Your task to perform on an android device: add a contact in the contacts app Image 0: 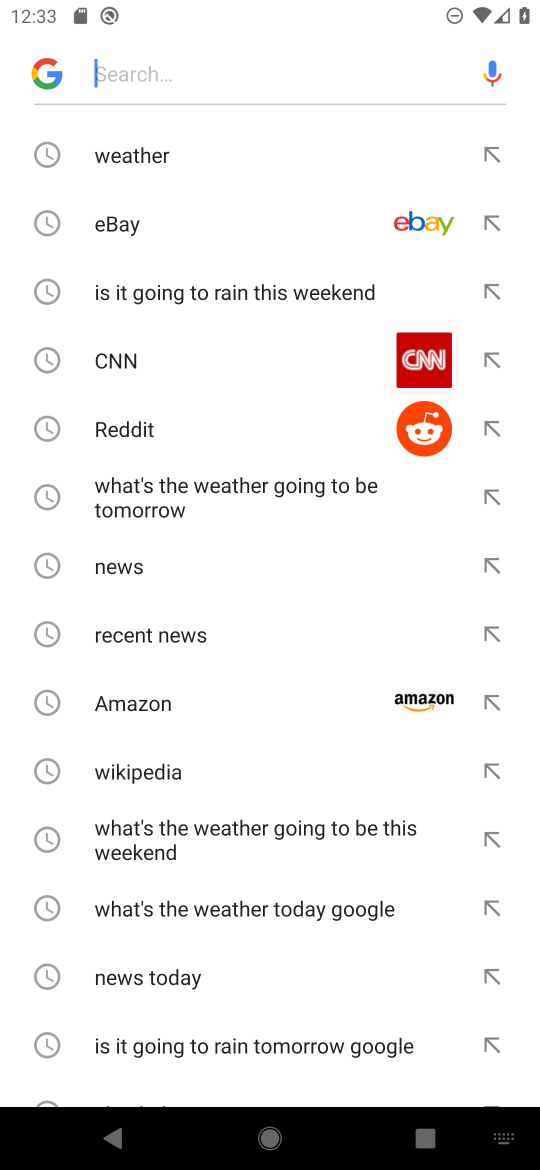
Step 0: press home button
Your task to perform on an android device: add a contact in the contacts app Image 1: 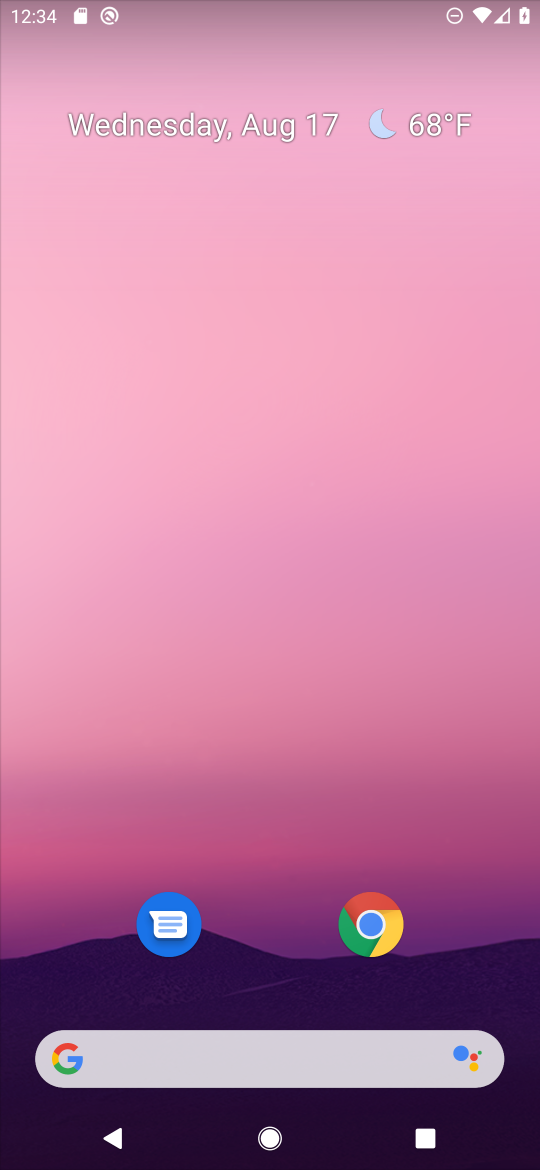
Step 1: drag from (264, 979) to (301, 98)
Your task to perform on an android device: add a contact in the contacts app Image 2: 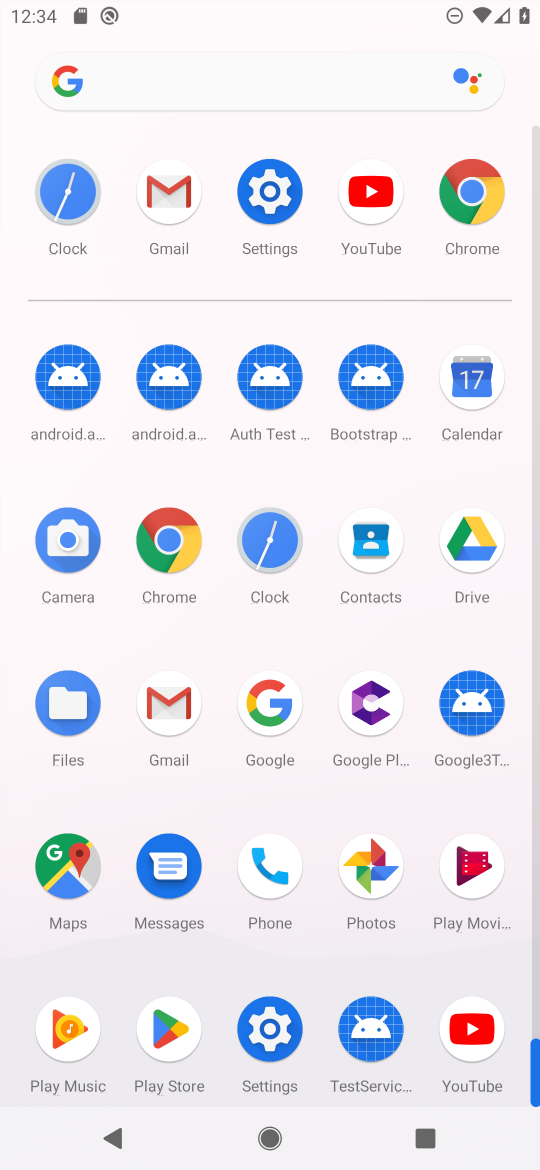
Step 2: click (286, 872)
Your task to perform on an android device: add a contact in the contacts app Image 3: 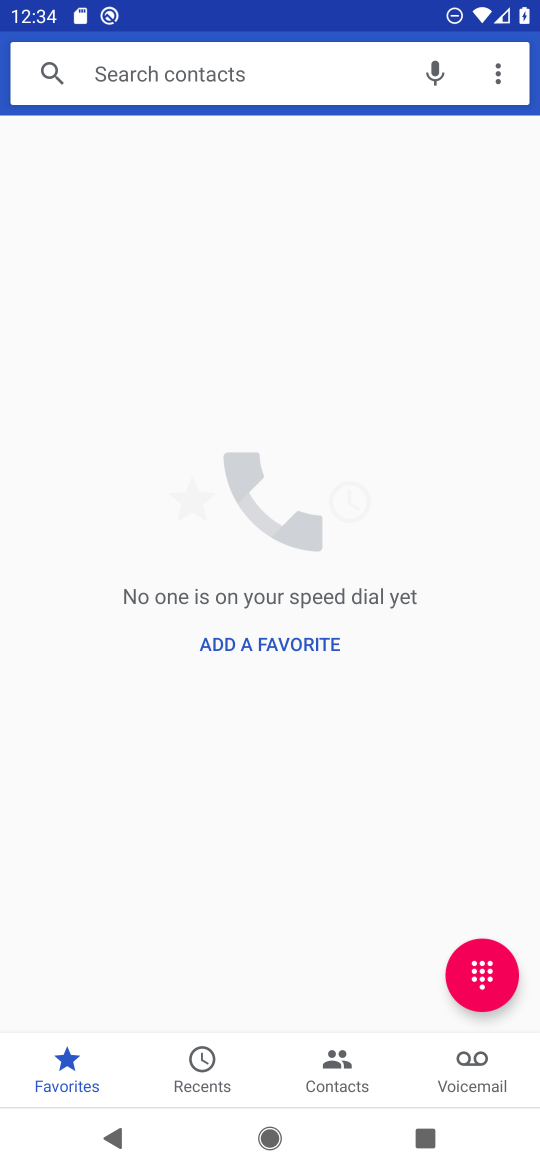
Step 3: click (315, 1071)
Your task to perform on an android device: add a contact in the contacts app Image 4: 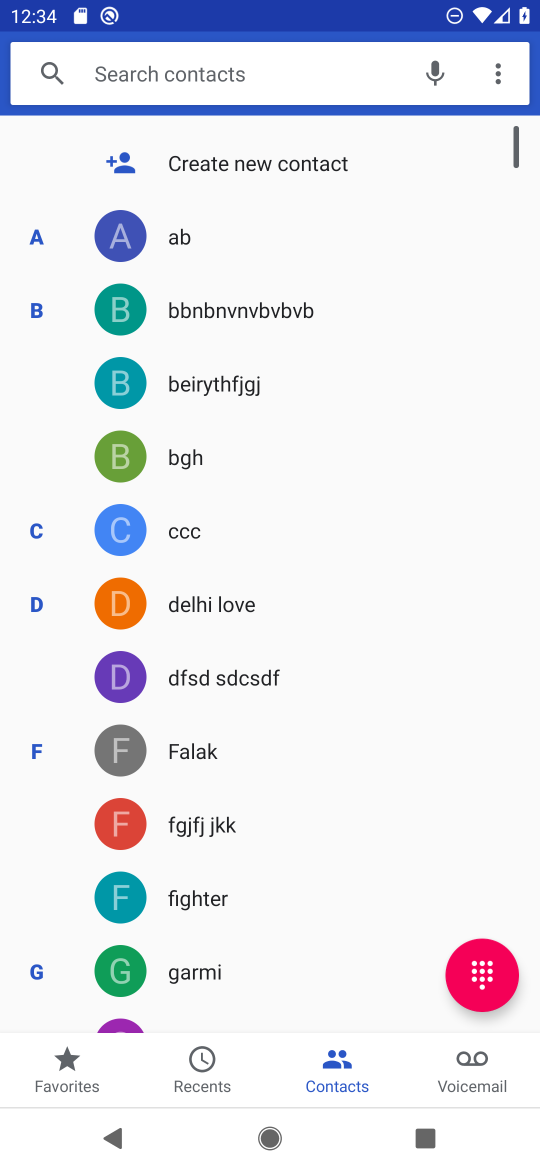
Step 4: click (398, 145)
Your task to perform on an android device: add a contact in the contacts app Image 5: 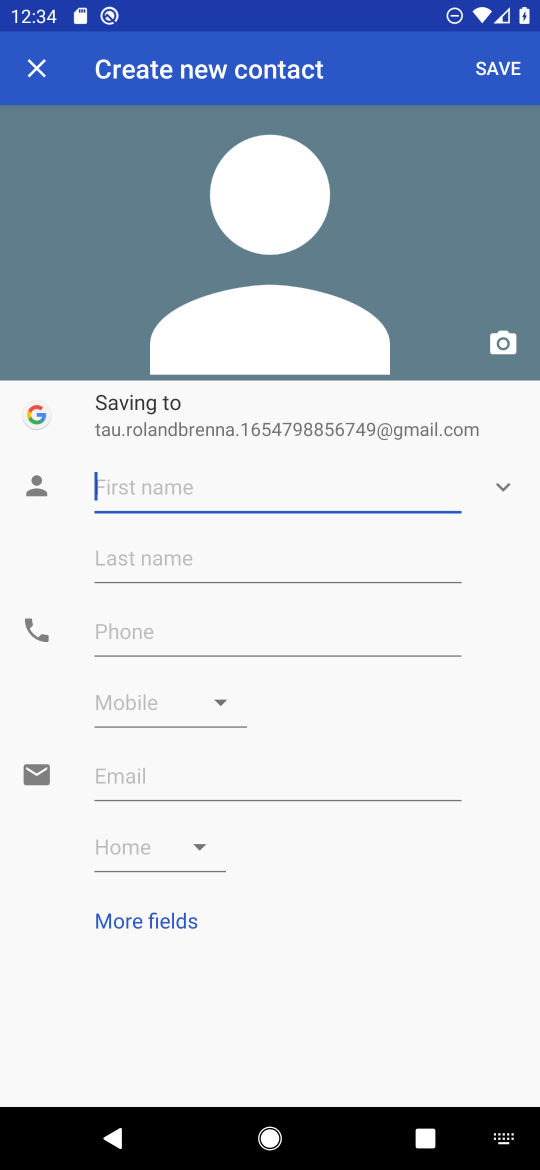
Step 5: type "oiujhgf"
Your task to perform on an android device: add a contact in the contacts app Image 6: 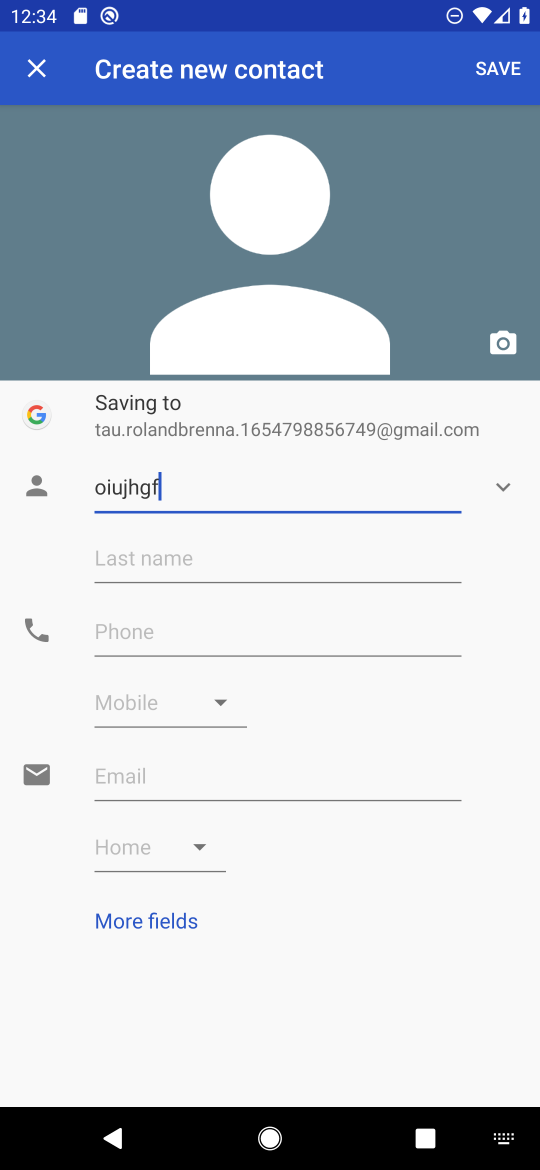
Step 6: click (148, 627)
Your task to perform on an android device: add a contact in the contacts app Image 7: 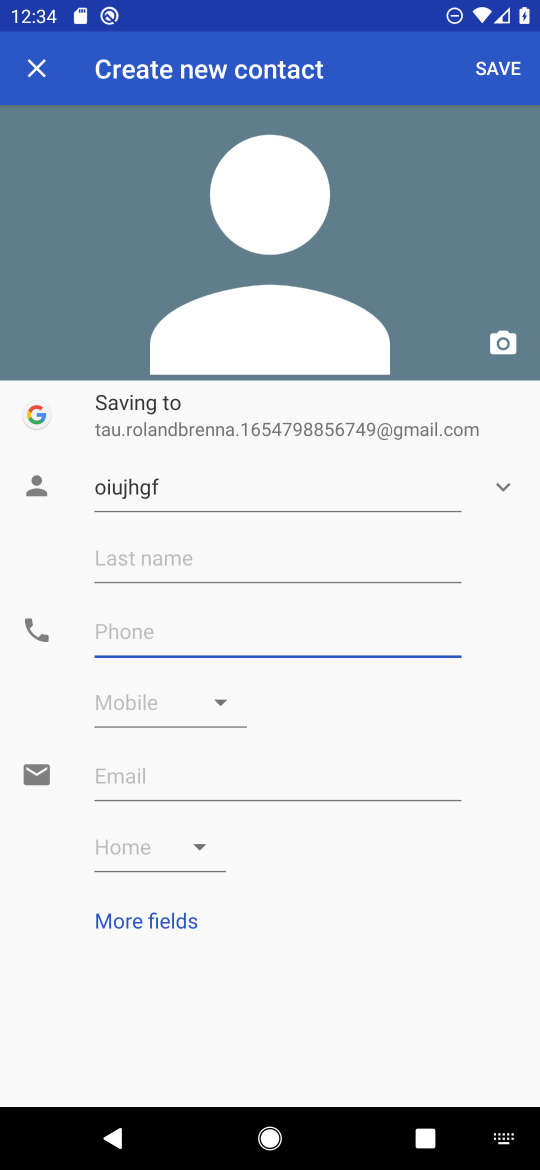
Step 7: type "0987654345"
Your task to perform on an android device: add a contact in the contacts app Image 8: 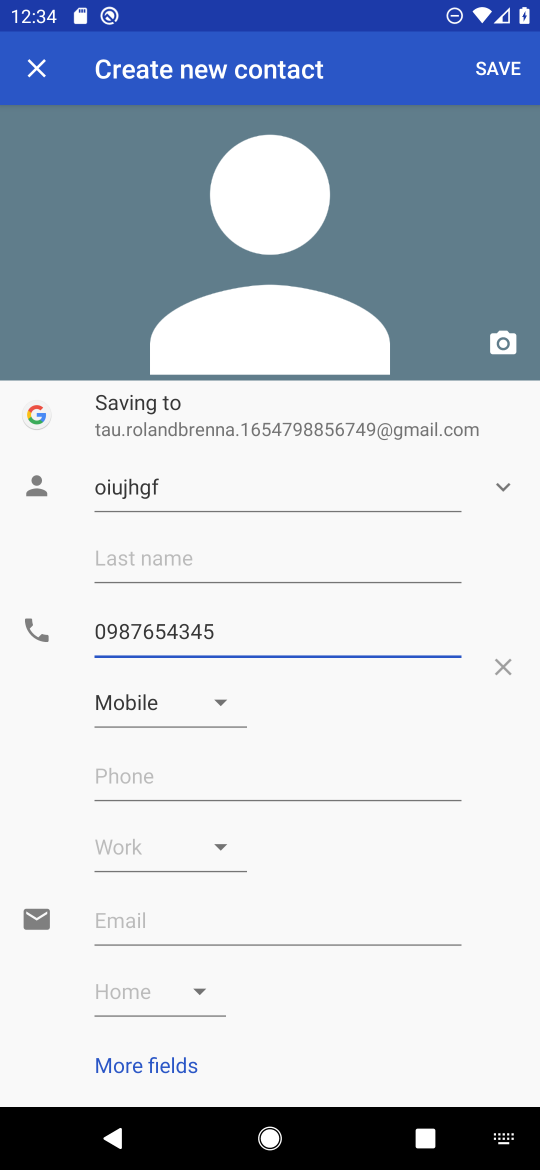
Step 8: click (505, 74)
Your task to perform on an android device: add a contact in the contacts app Image 9: 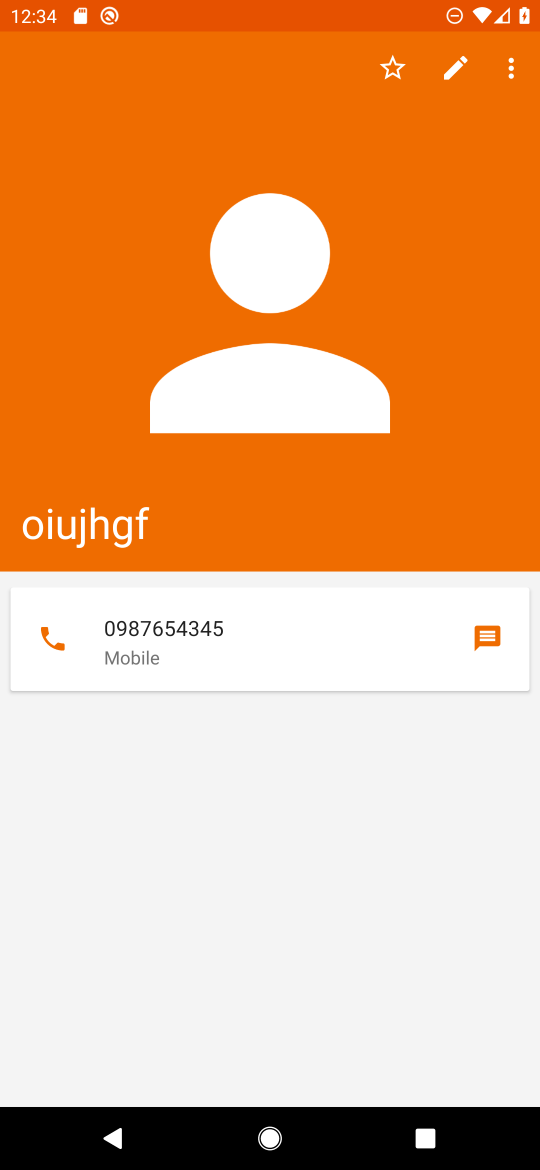
Step 9: task complete